Your task to perform on an android device: open a bookmark in the chrome app Image 0: 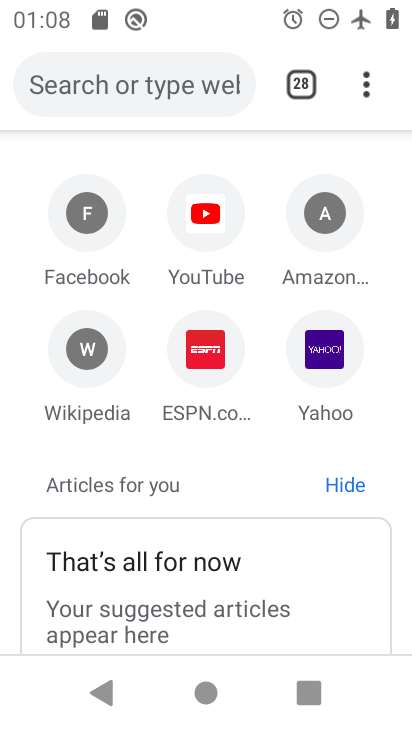
Step 0: click (379, 76)
Your task to perform on an android device: open a bookmark in the chrome app Image 1: 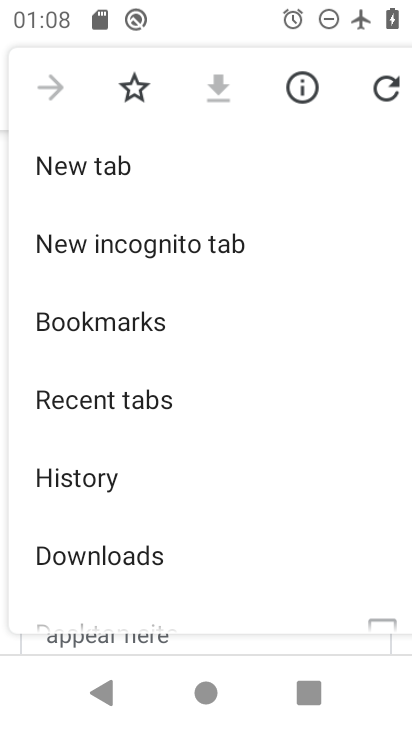
Step 1: click (105, 325)
Your task to perform on an android device: open a bookmark in the chrome app Image 2: 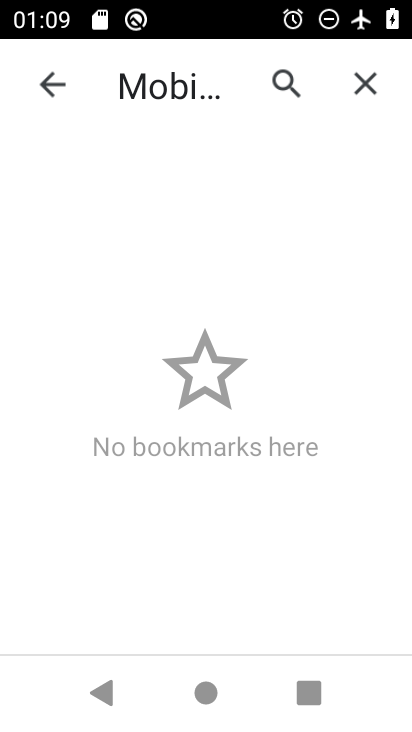
Step 2: task complete